Your task to perform on an android device: Find coffee shops on Maps Image 0: 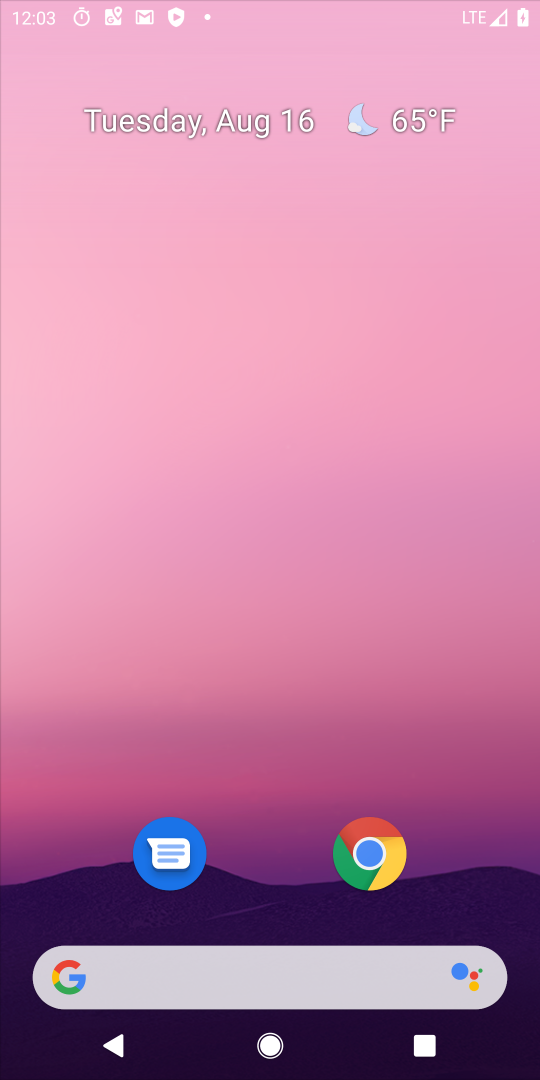
Step 0: press home button
Your task to perform on an android device: Find coffee shops on Maps Image 1: 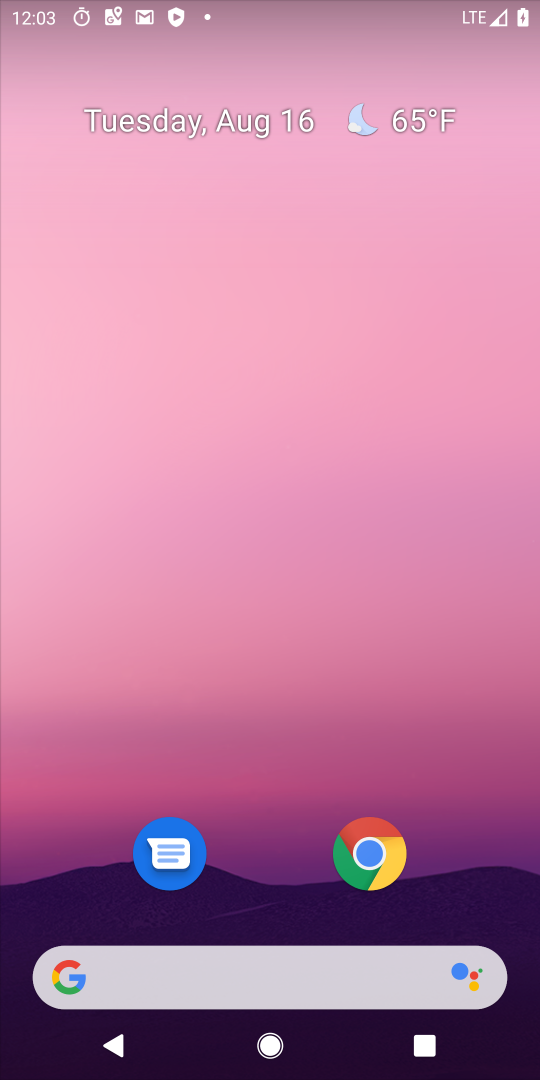
Step 1: drag from (252, 919) to (331, 348)
Your task to perform on an android device: Find coffee shops on Maps Image 2: 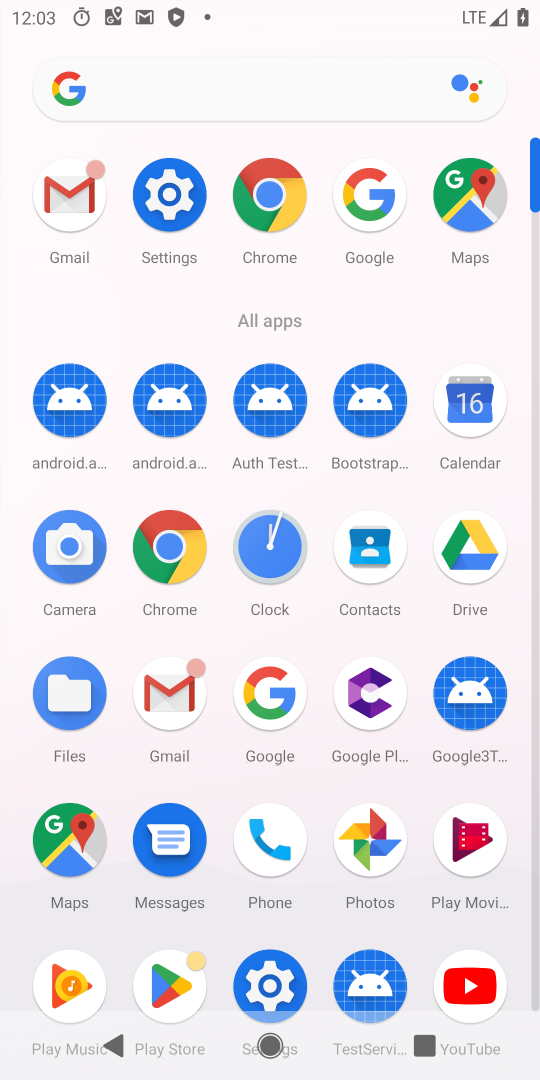
Step 2: click (54, 856)
Your task to perform on an android device: Find coffee shops on Maps Image 3: 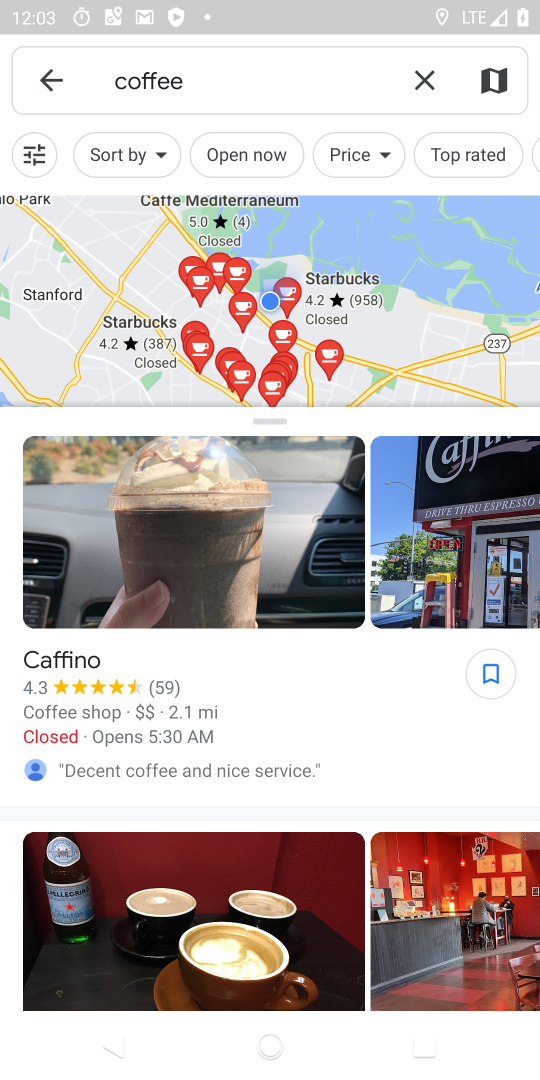
Step 3: task complete